Your task to perform on an android device: change the upload size in google photos Image 0: 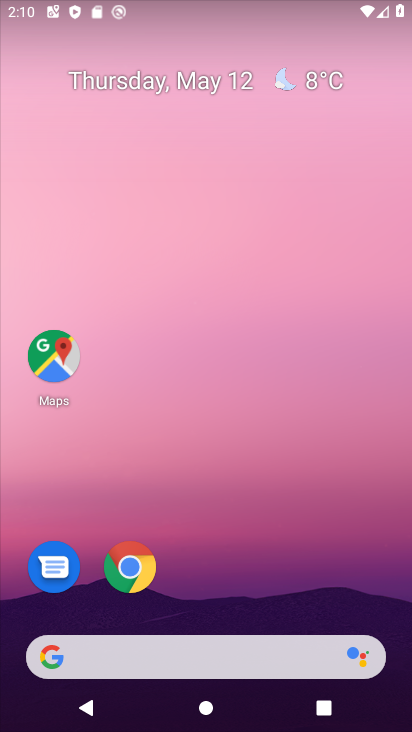
Step 0: drag from (215, 610) to (230, 92)
Your task to perform on an android device: change the upload size in google photos Image 1: 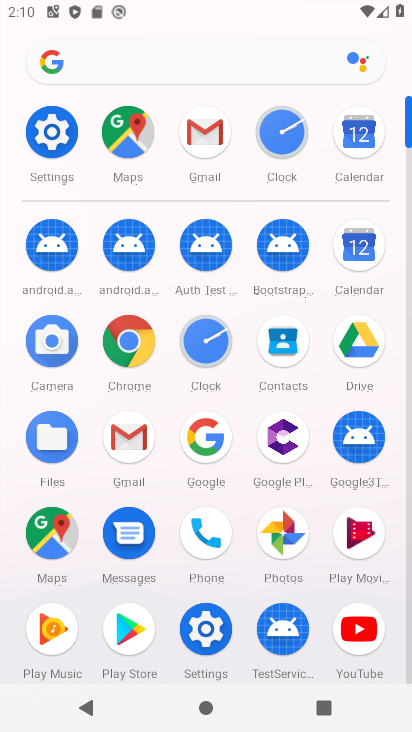
Step 1: click (285, 521)
Your task to perform on an android device: change the upload size in google photos Image 2: 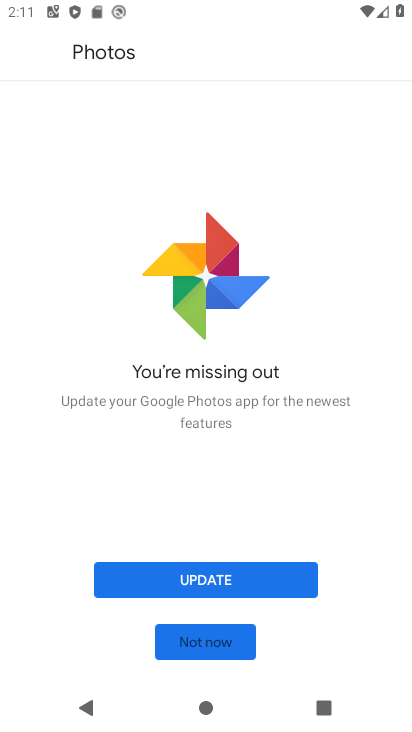
Step 2: click (215, 578)
Your task to perform on an android device: change the upload size in google photos Image 3: 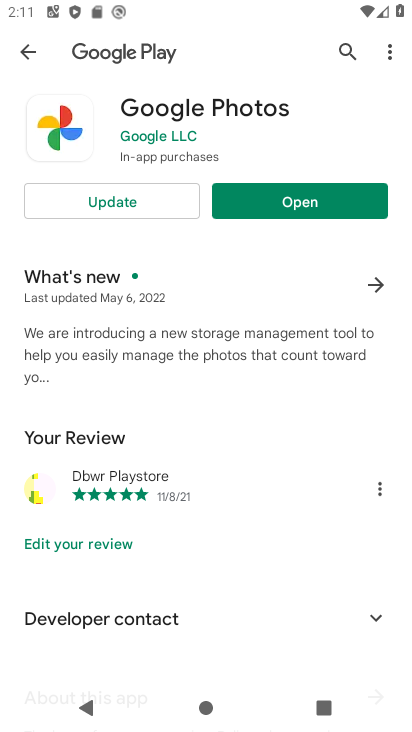
Step 3: click (174, 203)
Your task to perform on an android device: change the upload size in google photos Image 4: 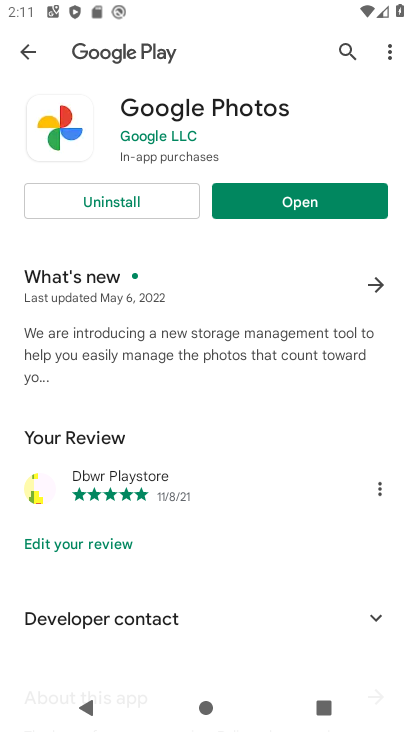
Step 4: click (267, 195)
Your task to perform on an android device: change the upload size in google photos Image 5: 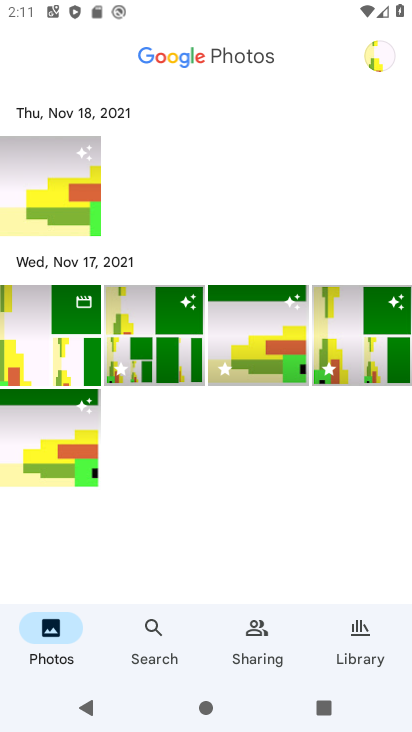
Step 5: click (358, 647)
Your task to perform on an android device: change the upload size in google photos Image 6: 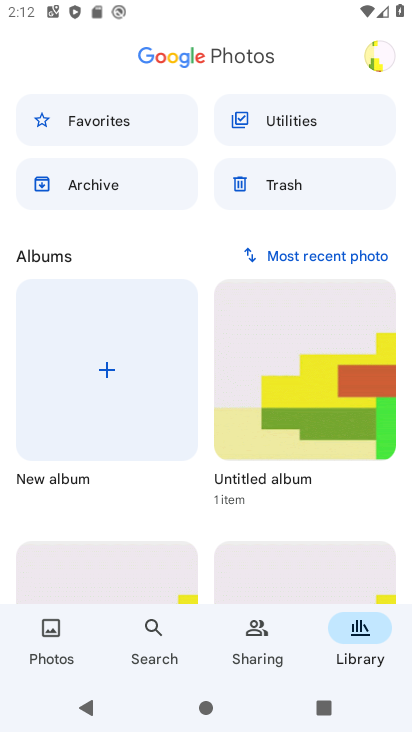
Step 6: click (374, 46)
Your task to perform on an android device: change the upload size in google photos Image 7: 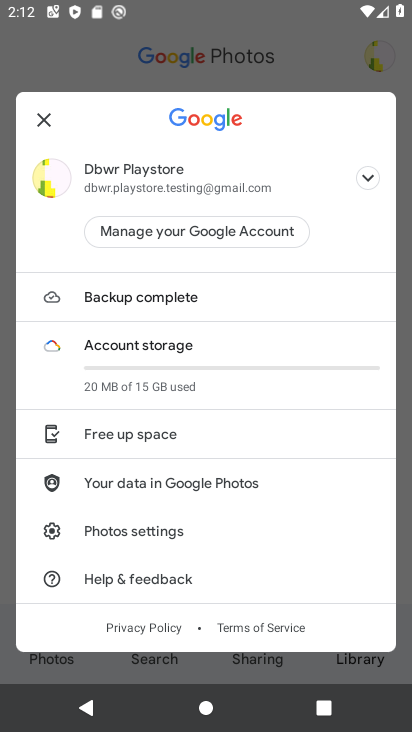
Step 7: click (99, 294)
Your task to perform on an android device: change the upload size in google photos Image 8: 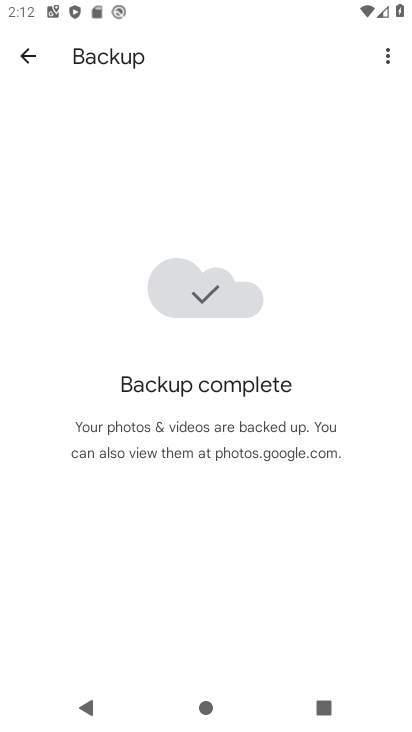
Step 8: click (387, 57)
Your task to perform on an android device: change the upload size in google photos Image 9: 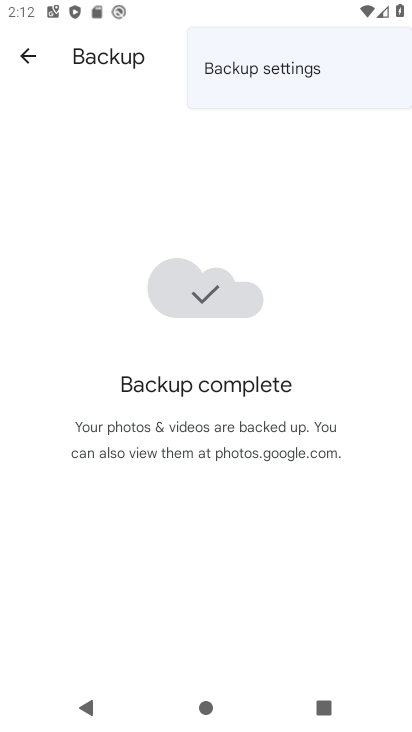
Step 9: click (270, 74)
Your task to perform on an android device: change the upload size in google photos Image 10: 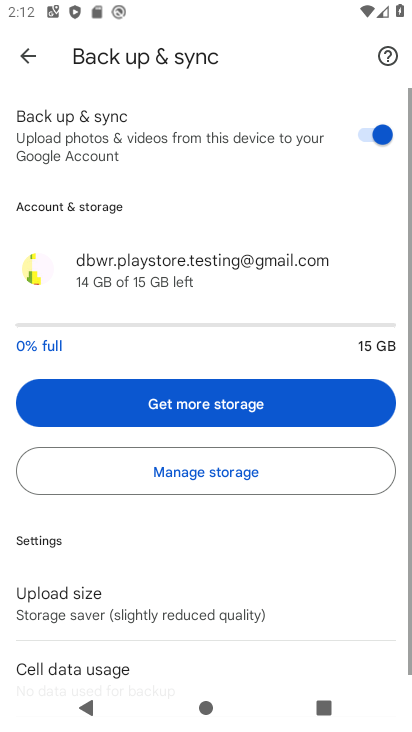
Step 10: click (105, 598)
Your task to perform on an android device: change the upload size in google photos Image 11: 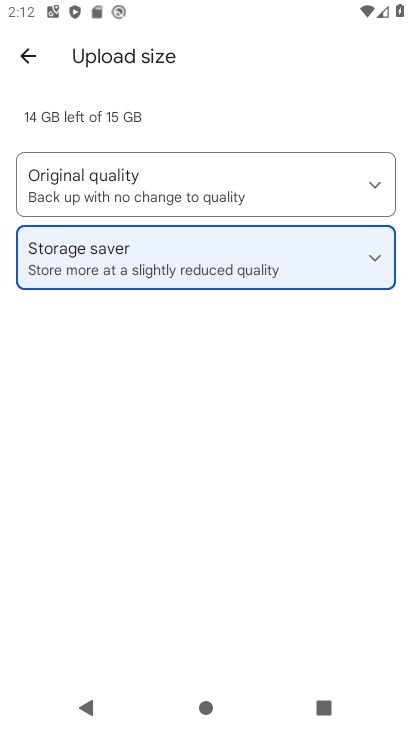
Step 11: click (134, 179)
Your task to perform on an android device: change the upload size in google photos Image 12: 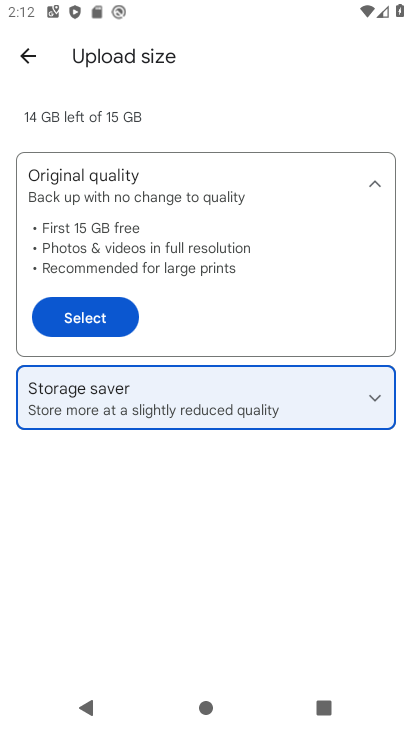
Step 12: click (80, 307)
Your task to perform on an android device: change the upload size in google photos Image 13: 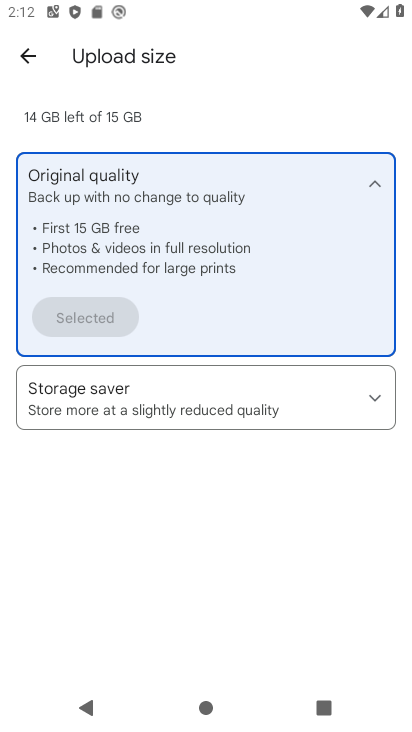
Step 13: task complete